Your task to perform on an android device: turn pop-ups on in chrome Image 0: 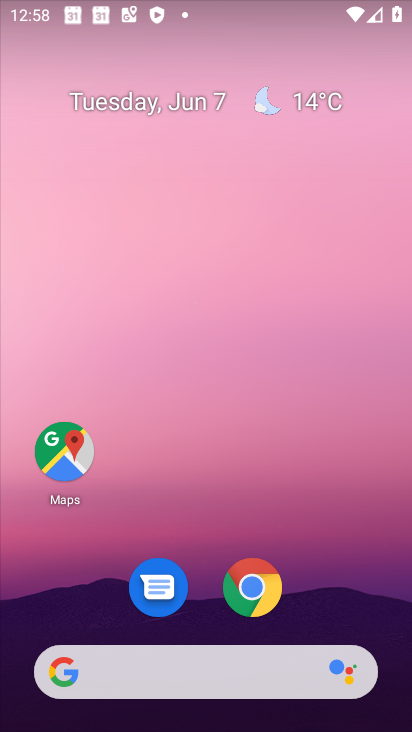
Step 0: drag from (180, 570) to (145, 189)
Your task to perform on an android device: turn pop-ups on in chrome Image 1: 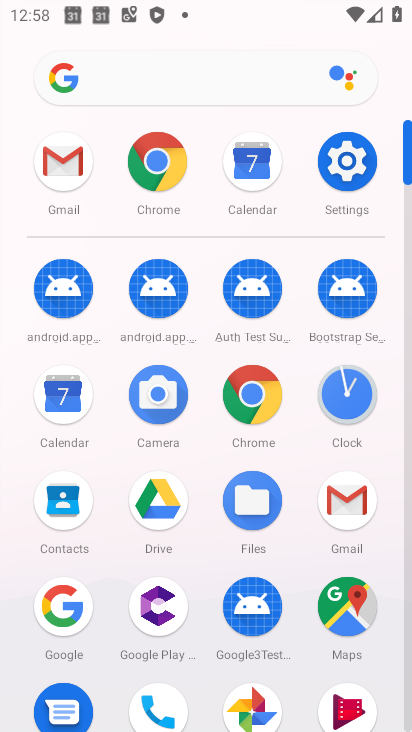
Step 1: click (175, 153)
Your task to perform on an android device: turn pop-ups on in chrome Image 2: 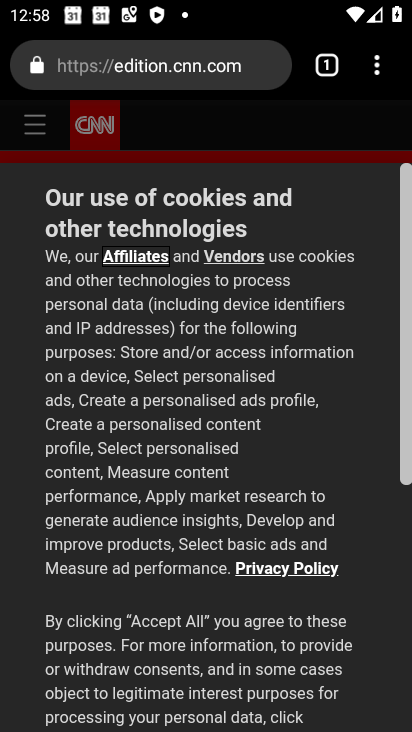
Step 2: click (388, 69)
Your task to perform on an android device: turn pop-ups on in chrome Image 3: 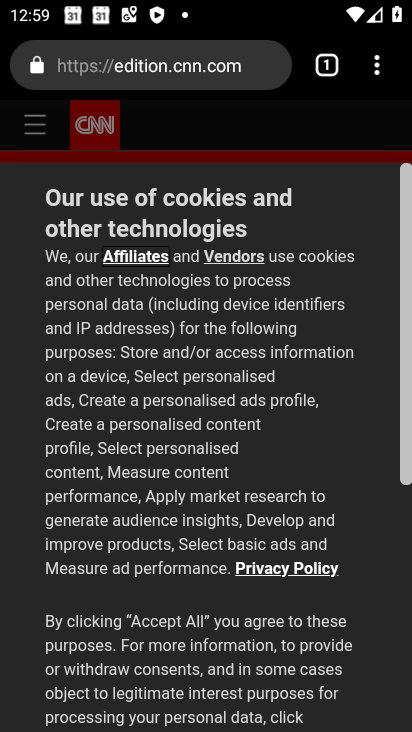
Step 3: click (385, 79)
Your task to perform on an android device: turn pop-ups on in chrome Image 4: 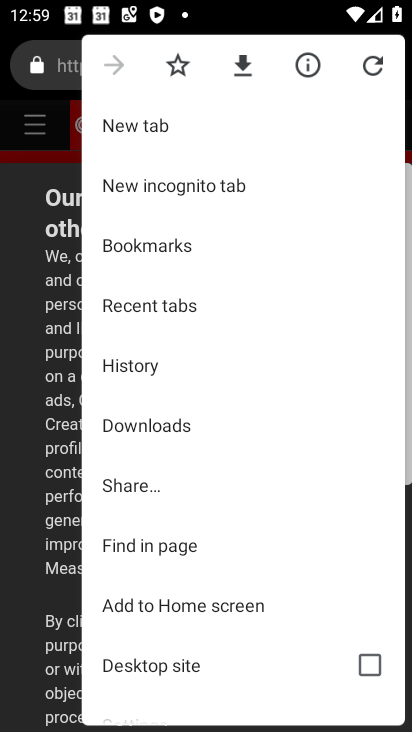
Step 4: drag from (194, 601) to (303, 84)
Your task to perform on an android device: turn pop-ups on in chrome Image 5: 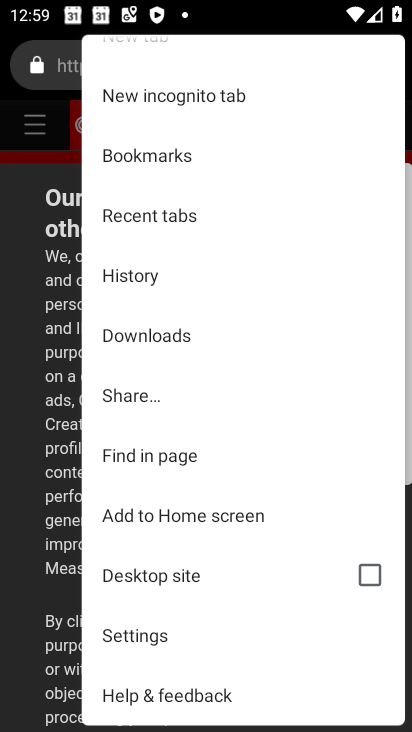
Step 5: click (134, 632)
Your task to perform on an android device: turn pop-ups on in chrome Image 6: 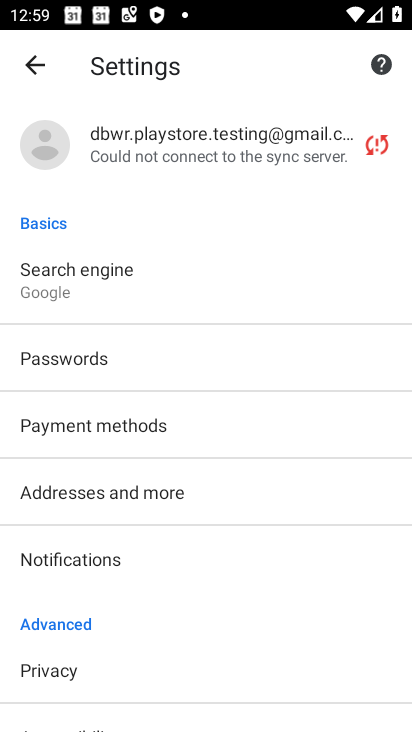
Step 6: drag from (155, 664) to (212, 141)
Your task to perform on an android device: turn pop-ups on in chrome Image 7: 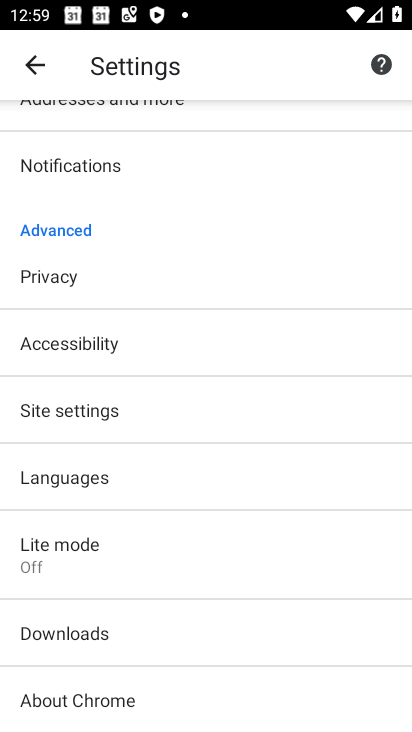
Step 7: click (133, 415)
Your task to perform on an android device: turn pop-ups on in chrome Image 8: 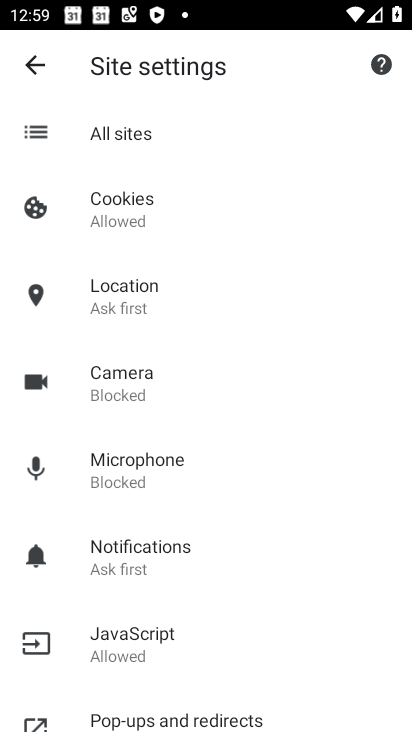
Step 8: drag from (157, 614) to (135, 408)
Your task to perform on an android device: turn pop-ups on in chrome Image 9: 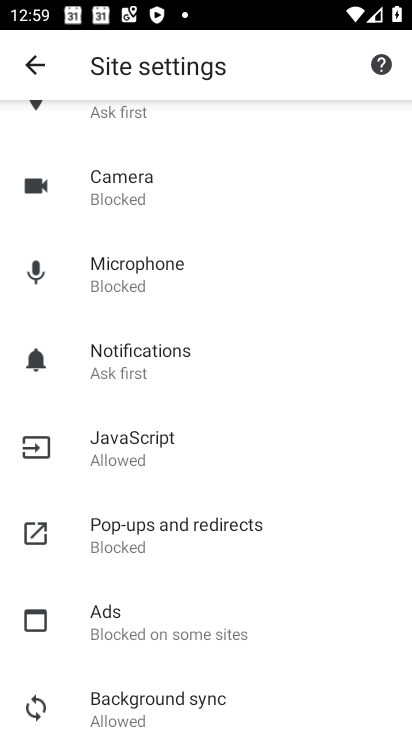
Step 9: click (164, 552)
Your task to perform on an android device: turn pop-ups on in chrome Image 10: 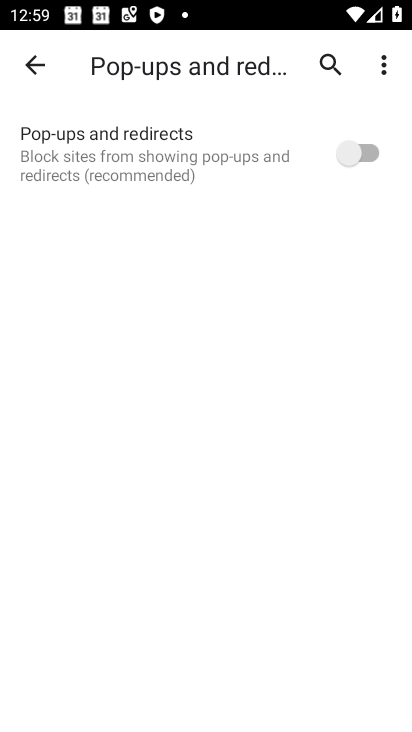
Step 10: click (244, 152)
Your task to perform on an android device: turn pop-ups on in chrome Image 11: 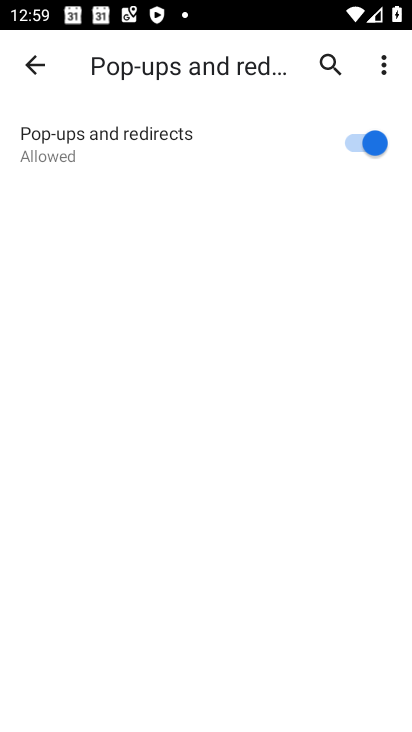
Step 11: task complete